Your task to perform on an android device: What's the weather going to be tomorrow? Image 0: 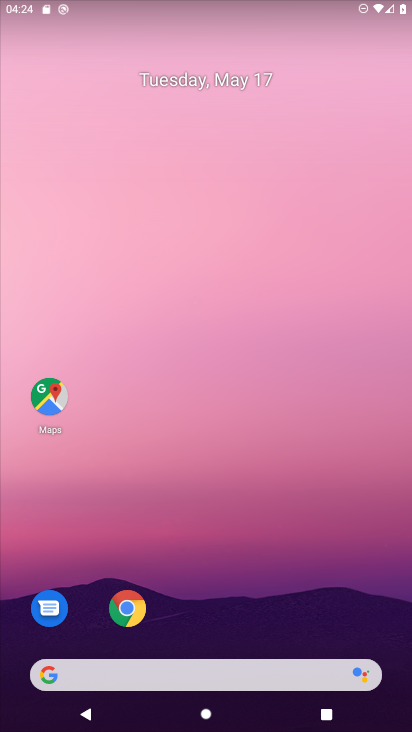
Step 0: drag from (208, 636) to (271, 285)
Your task to perform on an android device: What's the weather going to be tomorrow? Image 1: 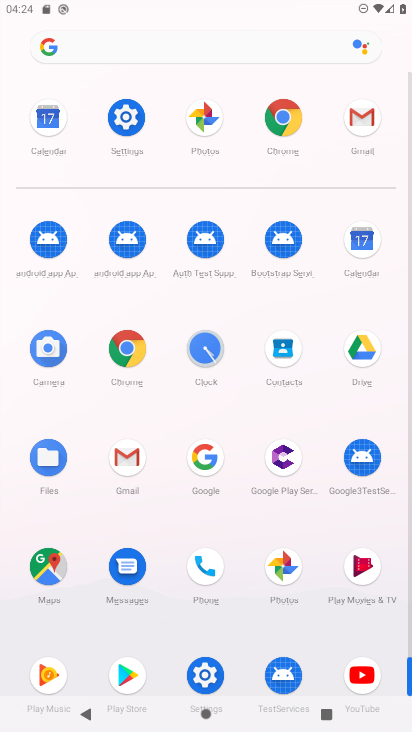
Step 1: click (205, 457)
Your task to perform on an android device: What's the weather going to be tomorrow? Image 2: 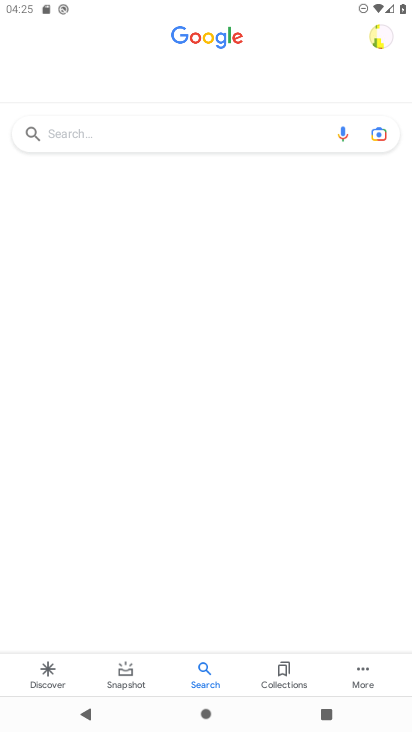
Step 2: click (144, 133)
Your task to perform on an android device: What's the weather going to be tomorrow? Image 3: 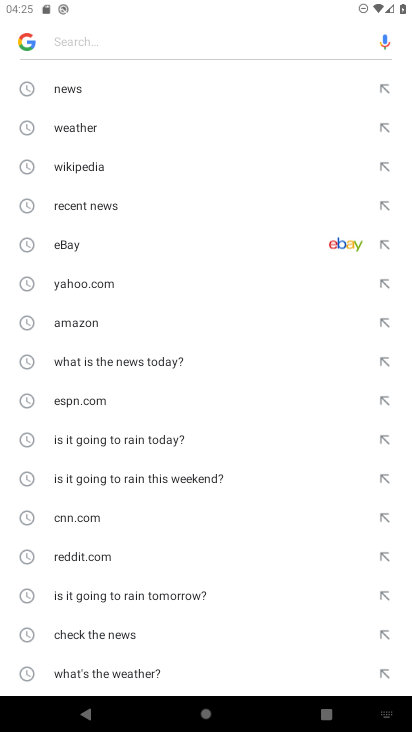
Step 3: click (87, 130)
Your task to perform on an android device: What's the weather going to be tomorrow? Image 4: 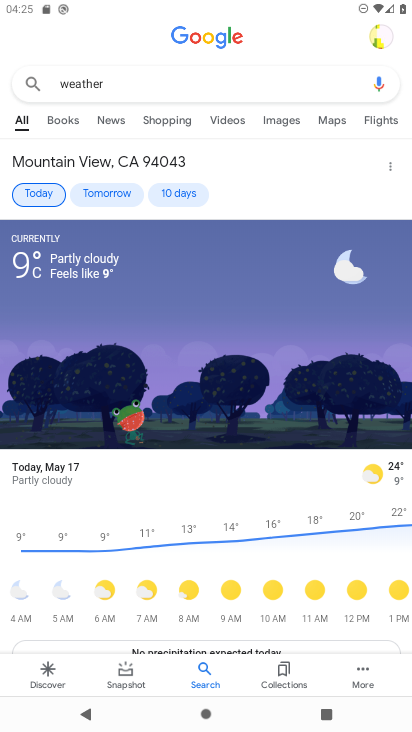
Step 4: click (112, 194)
Your task to perform on an android device: What's the weather going to be tomorrow? Image 5: 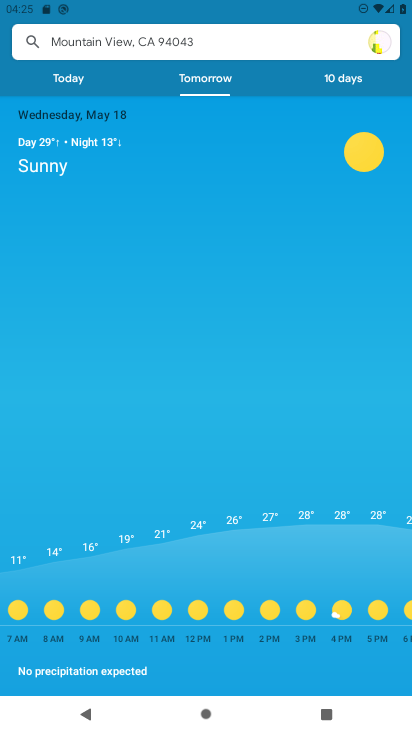
Step 5: task complete